Your task to perform on an android device: What's the weather? Image 0: 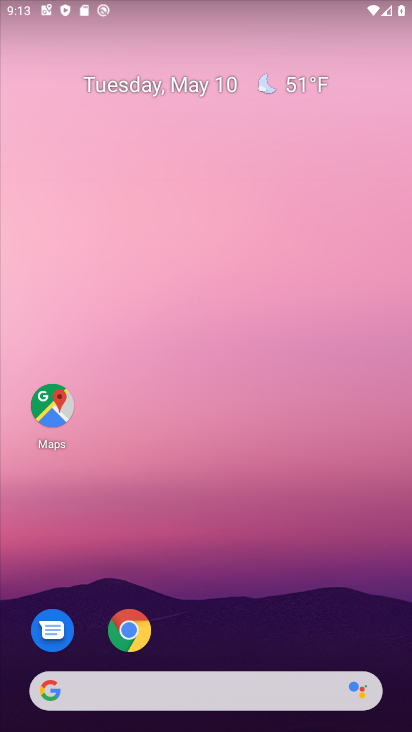
Step 0: click (134, 636)
Your task to perform on an android device: What's the weather? Image 1: 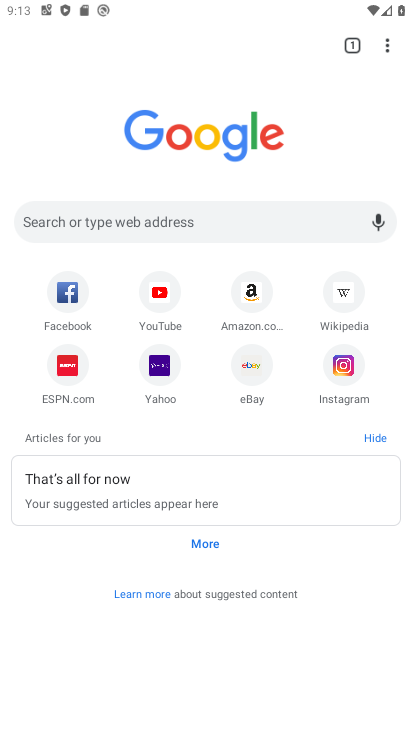
Step 1: click (88, 218)
Your task to perform on an android device: What's the weather? Image 2: 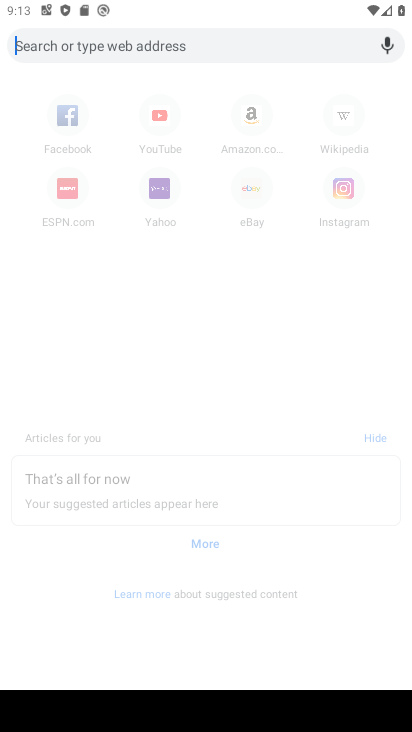
Step 2: type "What's the weather?"
Your task to perform on an android device: What's the weather? Image 3: 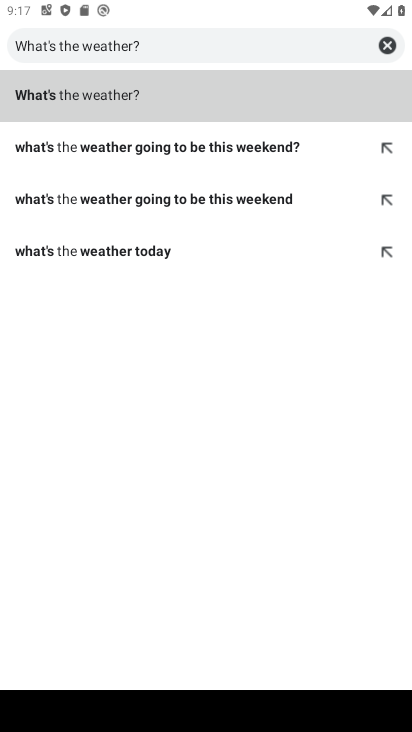
Step 3: click (92, 98)
Your task to perform on an android device: What's the weather? Image 4: 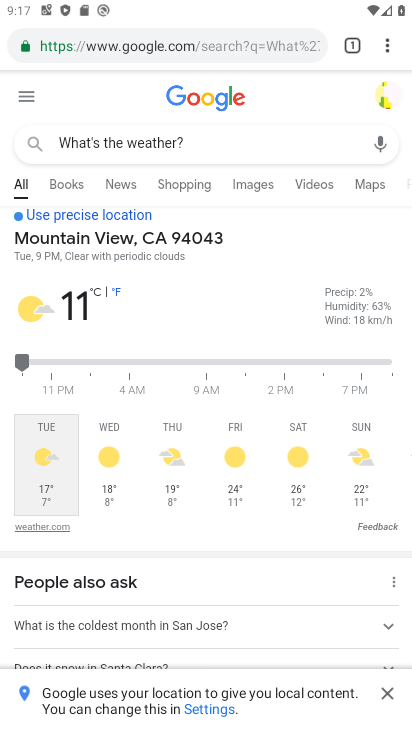
Step 4: task complete